Your task to perform on an android device: Open the stopwatch Image 0: 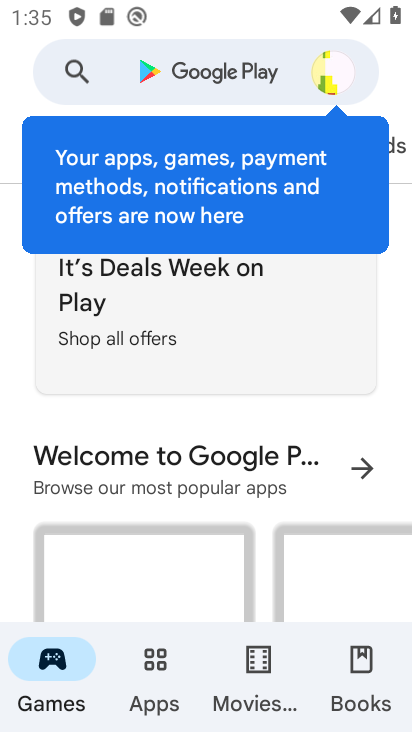
Step 0: press home button
Your task to perform on an android device: Open the stopwatch Image 1: 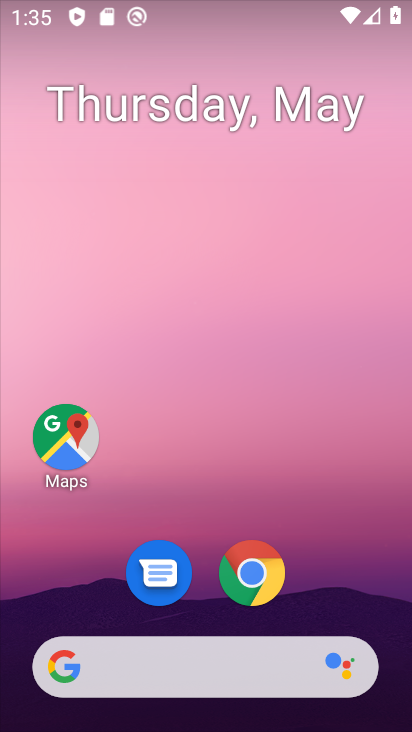
Step 1: drag from (329, 591) to (245, 194)
Your task to perform on an android device: Open the stopwatch Image 2: 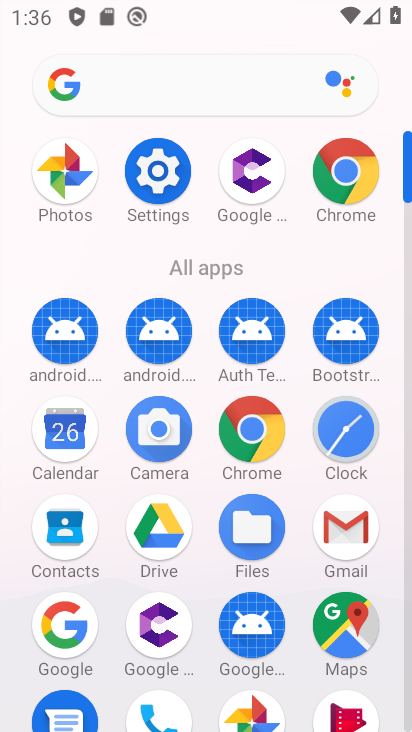
Step 2: click (348, 419)
Your task to perform on an android device: Open the stopwatch Image 3: 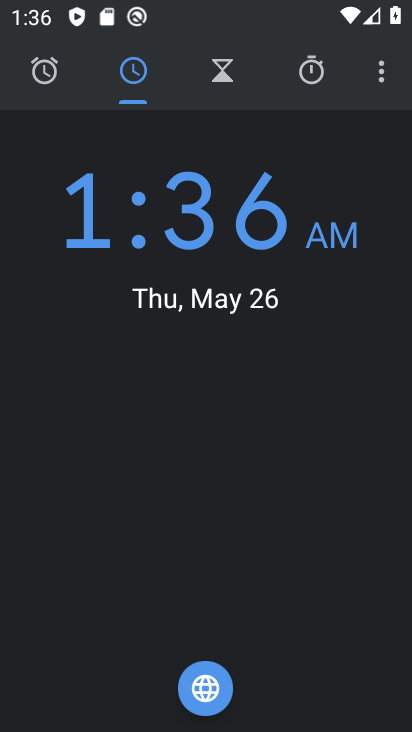
Step 3: click (319, 68)
Your task to perform on an android device: Open the stopwatch Image 4: 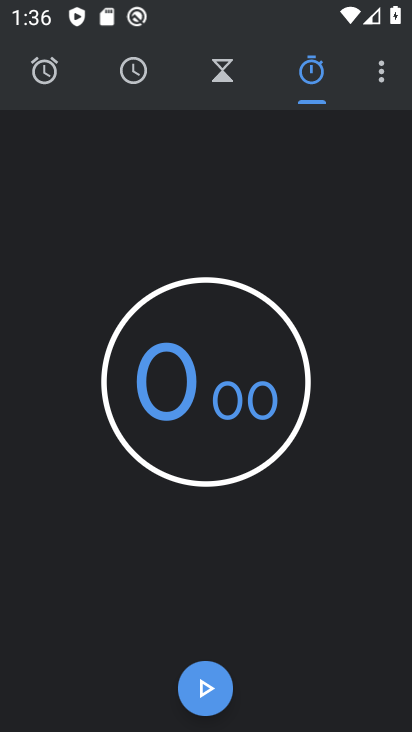
Step 4: task complete